Your task to perform on an android device: show emergency info Image 0: 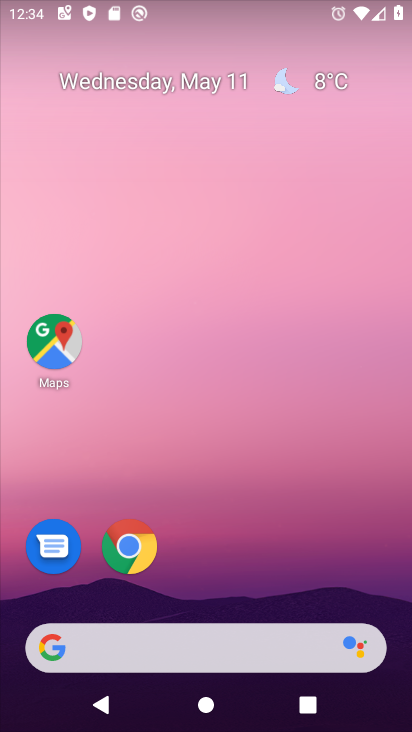
Step 0: drag from (239, 658) to (409, 326)
Your task to perform on an android device: show emergency info Image 1: 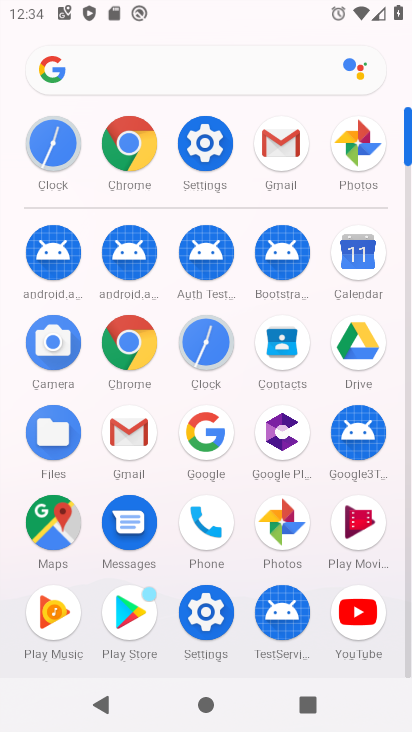
Step 1: click (218, 154)
Your task to perform on an android device: show emergency info Image 2: 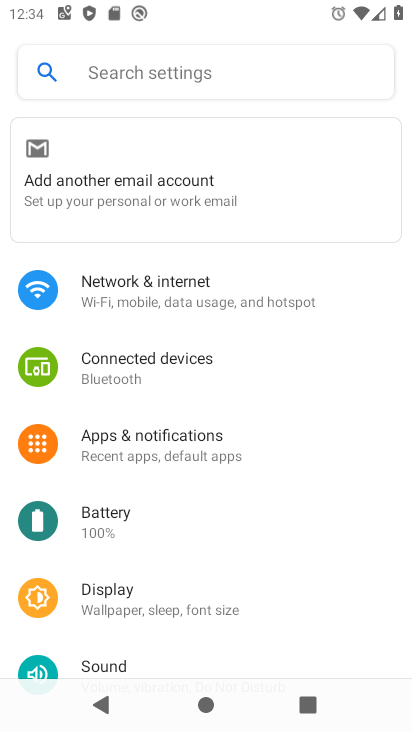
Step 2: drag from (248, 591) to (409, 5)
Your task to perform on an android device: show emergency info Image 3: 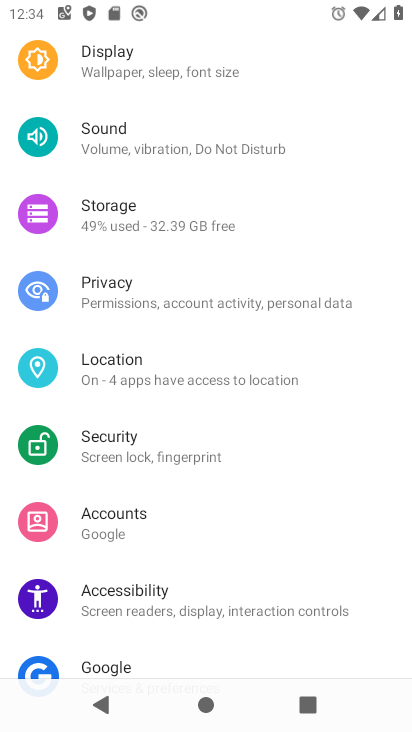
Step 3: drag from (269, 571) to (398, 96)
Your task to perform on an android device: show emergency info Image 4: 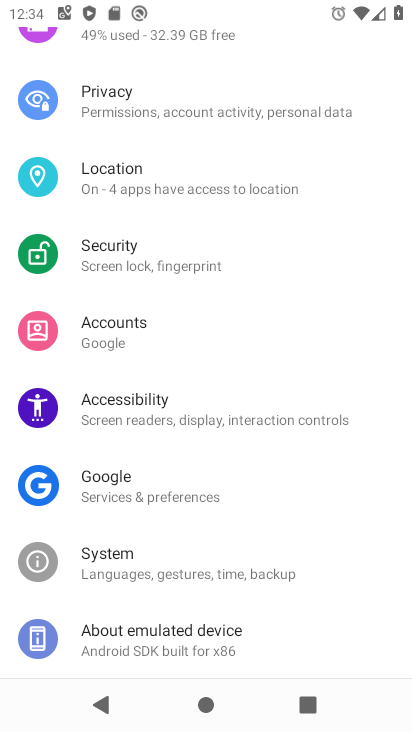
Step 4: click (193, 630)
Your task to perform on an android device: show emergency info Image 5: 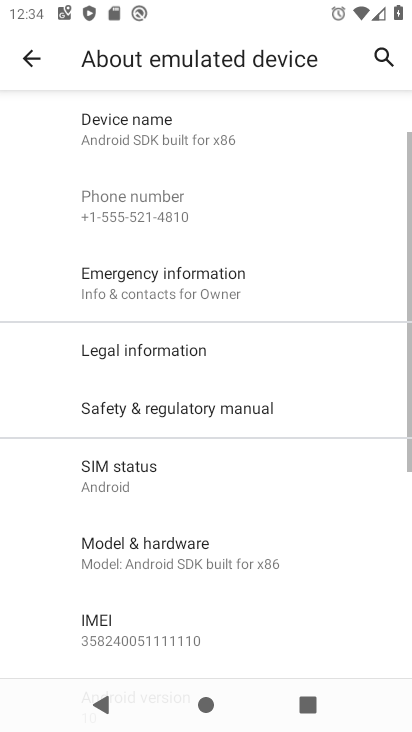
Step 5: click (185, 288)
Your task to perform on an android device: show emergency info Image 6: 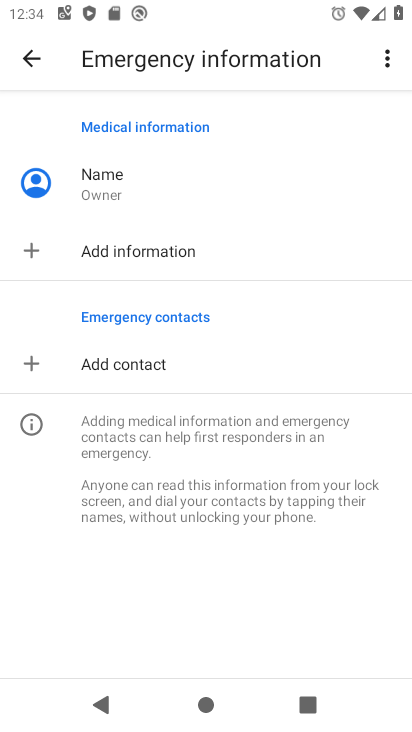
Step 6: task complete